Your task to perform on an android device: Is it going to rain this weekend? Image 0: 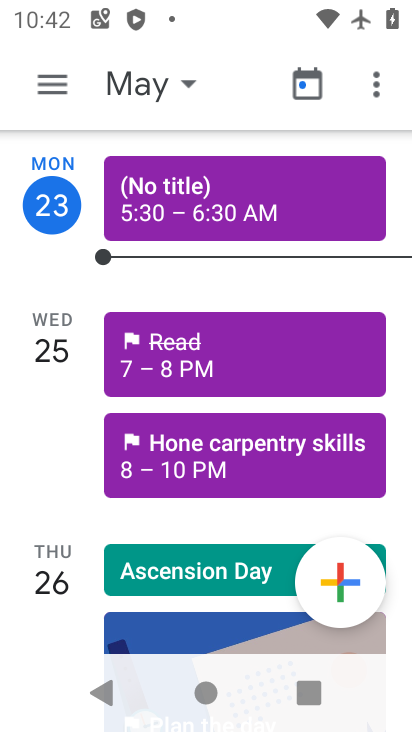
Step 0: press home button
Your task to perform on an android device: Is it going to rain this weekend? Image 1: 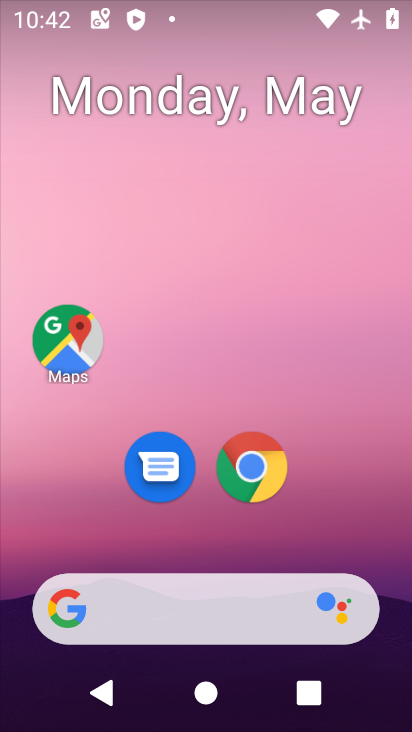
Step 1: click (175, 599)
Your task to perform on an android device: Is it going to rain this weekend? Image 2: 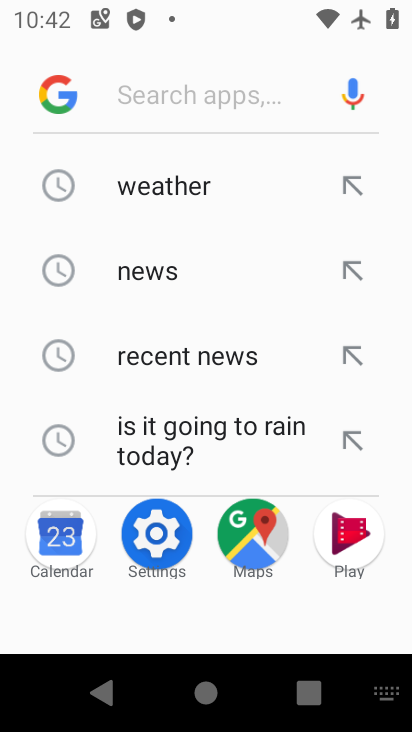
Step 2: type "is it going to rain this weekend"
Your task to perform on an android device: Is it going to rain this weekend? Image 3: 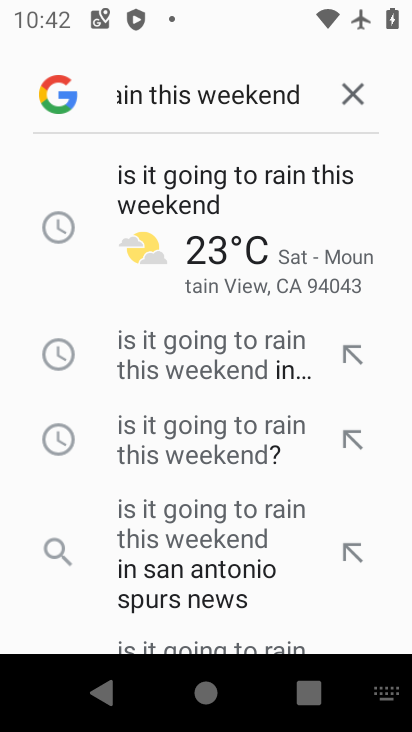
Step 3: click (264, 222)
Your task to perform on an android device: Is it going to rain this weekend? Image 4: 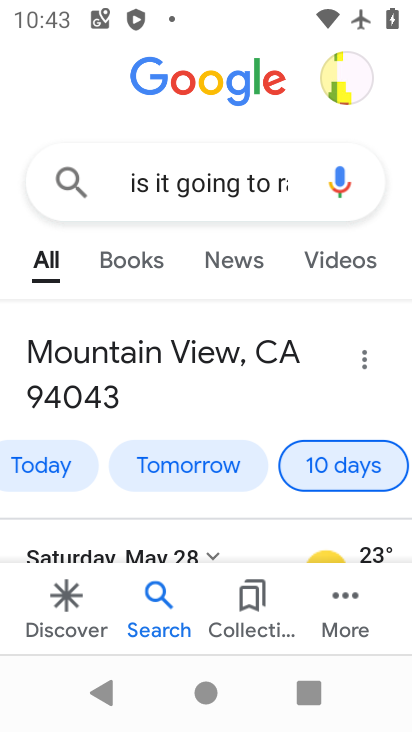
Step 4: task complete